Your task to perform on an android device: open sync settings in chrome Image 0: 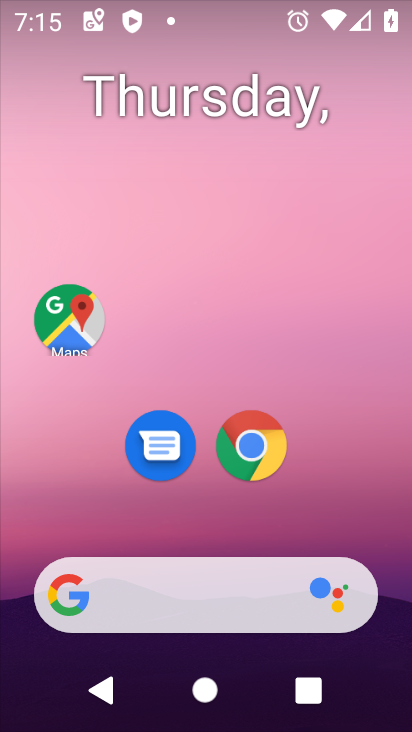
Step 0: click (252, 438)
Your task to perform on an android device: open sync settings in chrome Image 1: 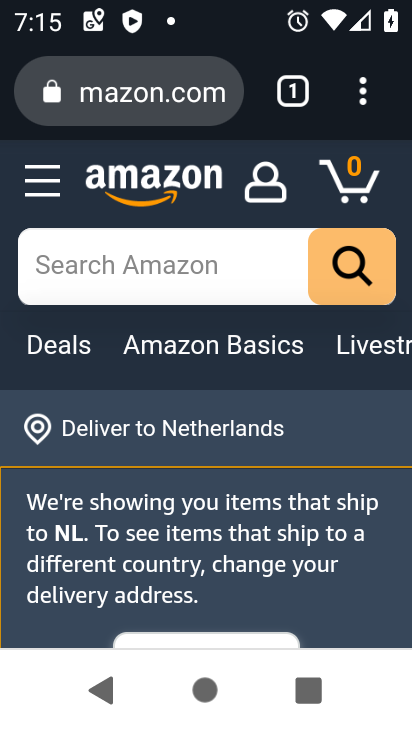
Step 1: click (363, 88)
Your task to perform on an android device: open sync settings in chrome Image 2: 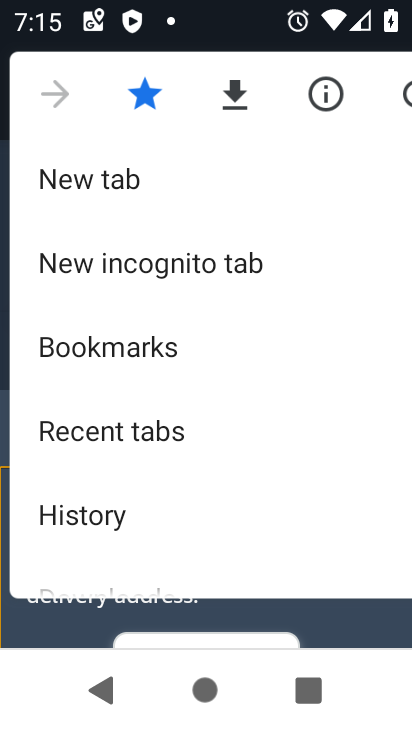
Step 2: drag from (246, 461) to (238, 153)
Your task to perform on an android device: open sync settings in chrome Image 3: 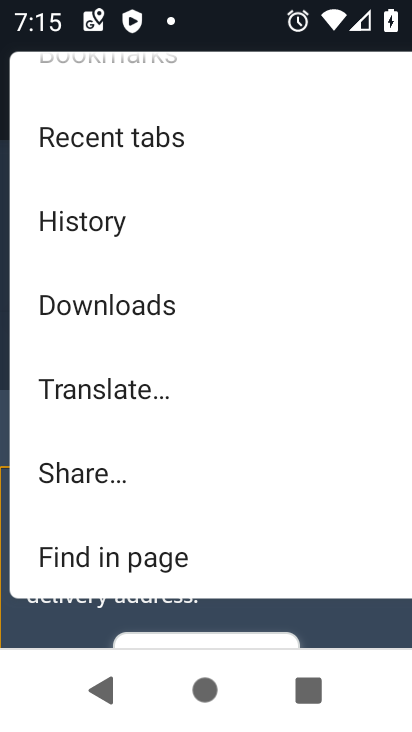
Step 3: drag from (153, 494) to (151, 215)
Your task to perform on an android device: open sync settings in chrome Image 4: 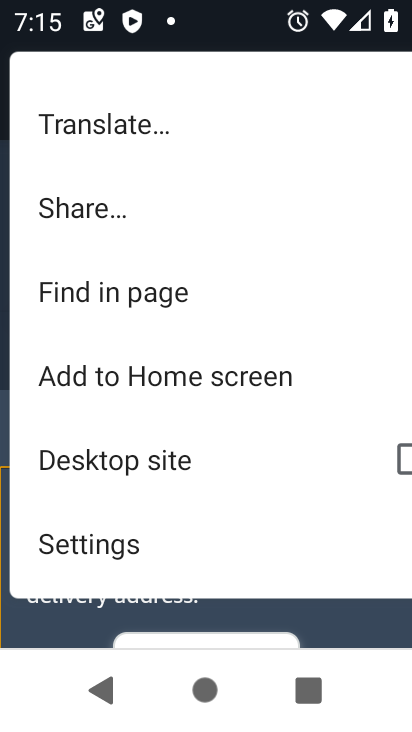
Step 4: click (79, 538)
Your task to perform on an android device: open sync settings in chrome Image 5: 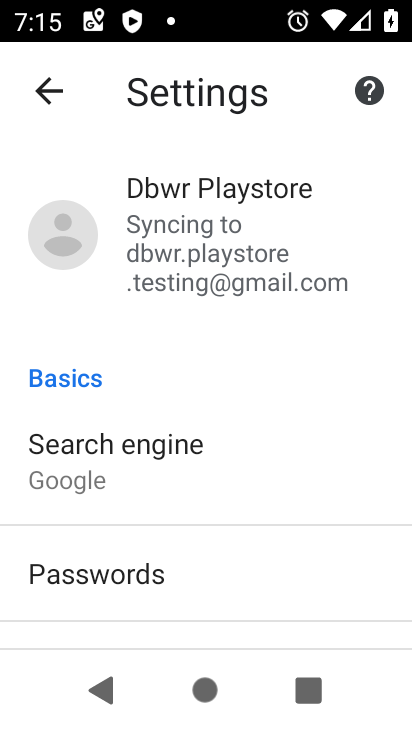
Step 5: drag from (207, 534) to (191, 259)
Your task to perform on an android device: open sync settings in chrome Image 6: 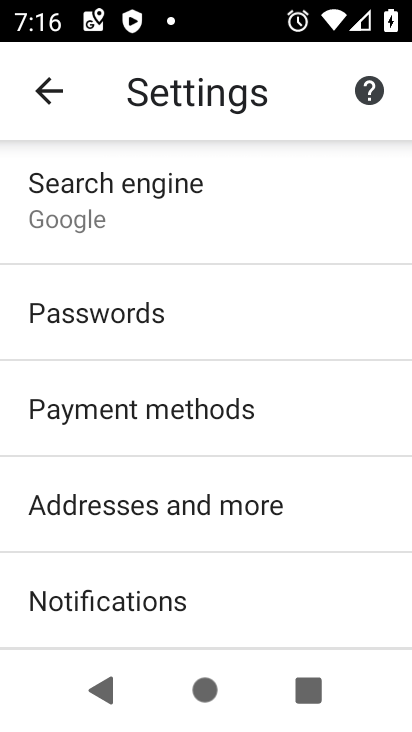
Step 6: drag from (180, 484) to (183, 204)
Your task to perform on an android device: open sync settings in chrome Image 7: 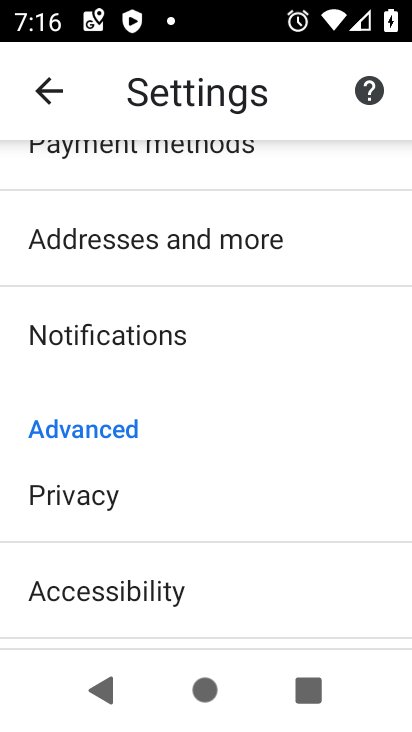
Step 7: drag from (197, 533) to (178, 201)
Your task to perform on an android device: open sync settings in chrome Image 8: 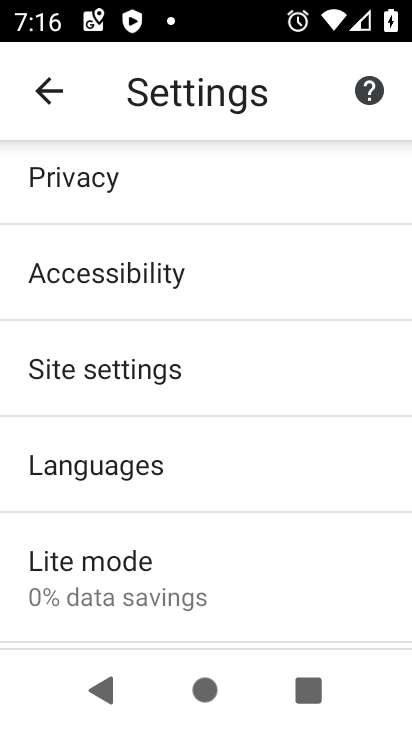
Step 8: drag from (170, 246) to (408, 724)
Your task to perform on an android device: open sync settings in chrome Image 9: 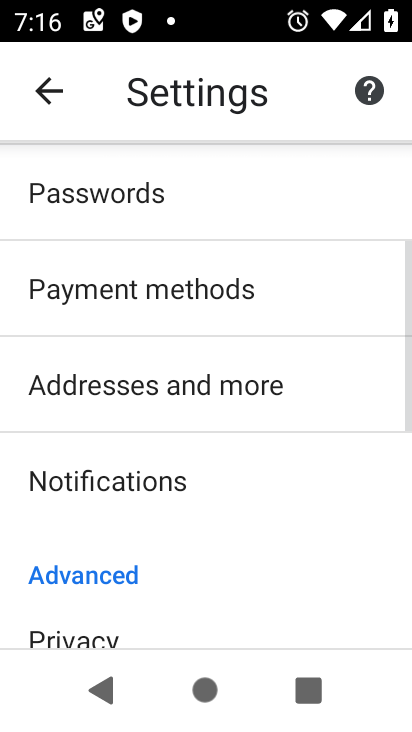
Step 9: drag from (264, 212) to (232, 731)
Your task to perform on an android device: open sync settings in chrome Image 10: 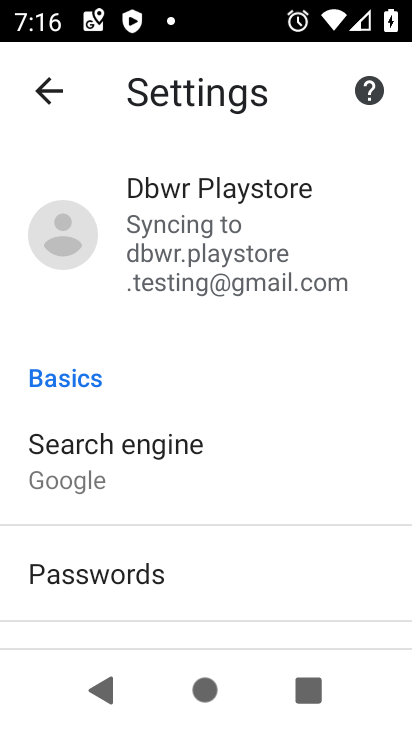
Step 10: click (196, 202)
Your task to perform on an android device: open sync settings in chrome Image 11: 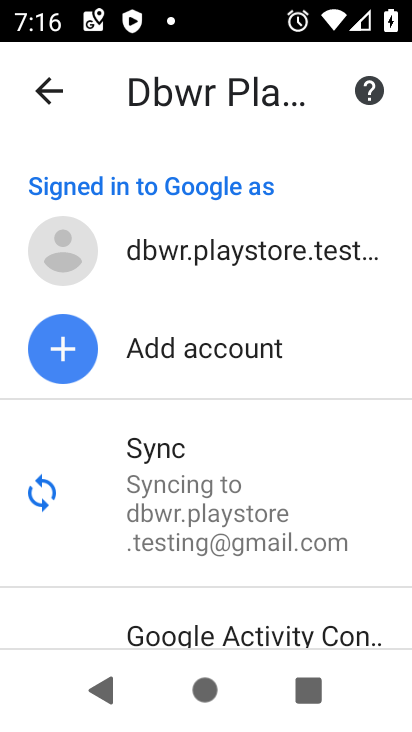
Step 11: click (138, 444)
Your task to perform on an android device: open sync settings in chrome Image 12: 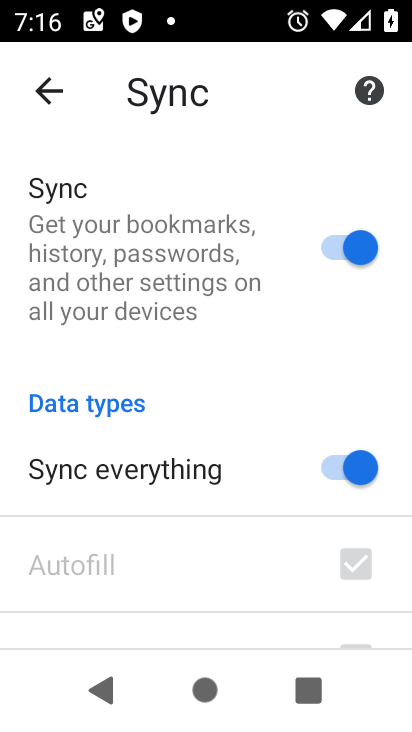
Step 12: task complete